Your task to perform on an android device: uninstall "Indeed Job Search" Image 0: 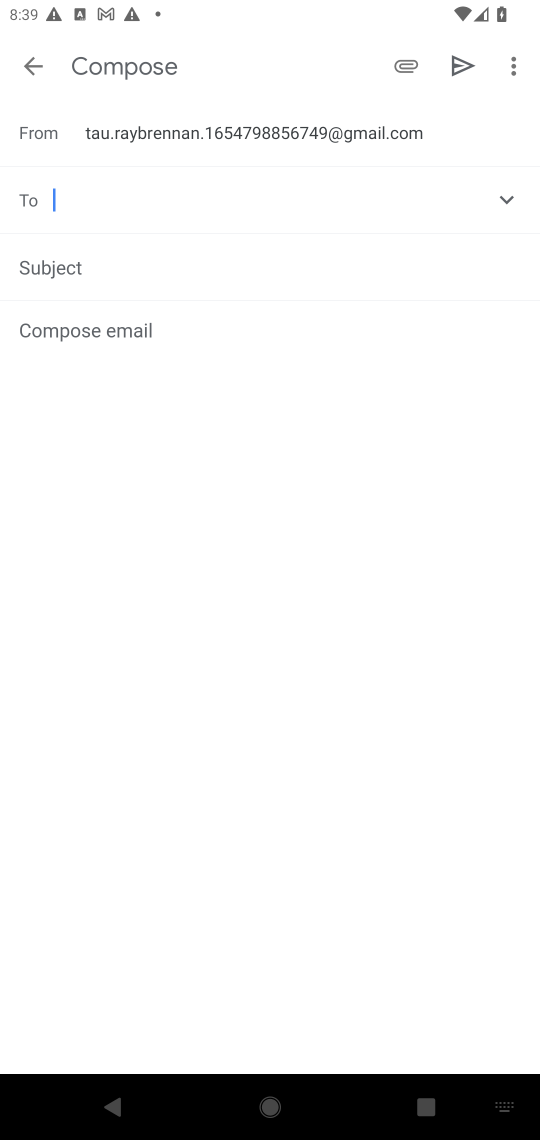
Step 0: press home button
Your task to perform on an android device: uninstall "Indeed Job Search" Image 1: 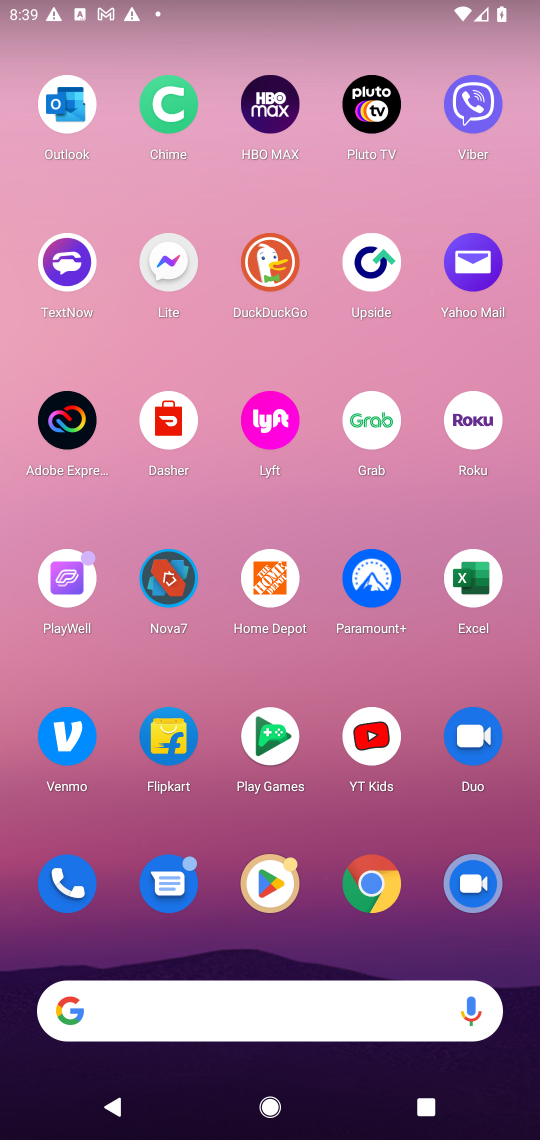
Step 1: click (289, 886)
Your task to perform on an android device: uninstall "Indeed Job Search" Image 2: 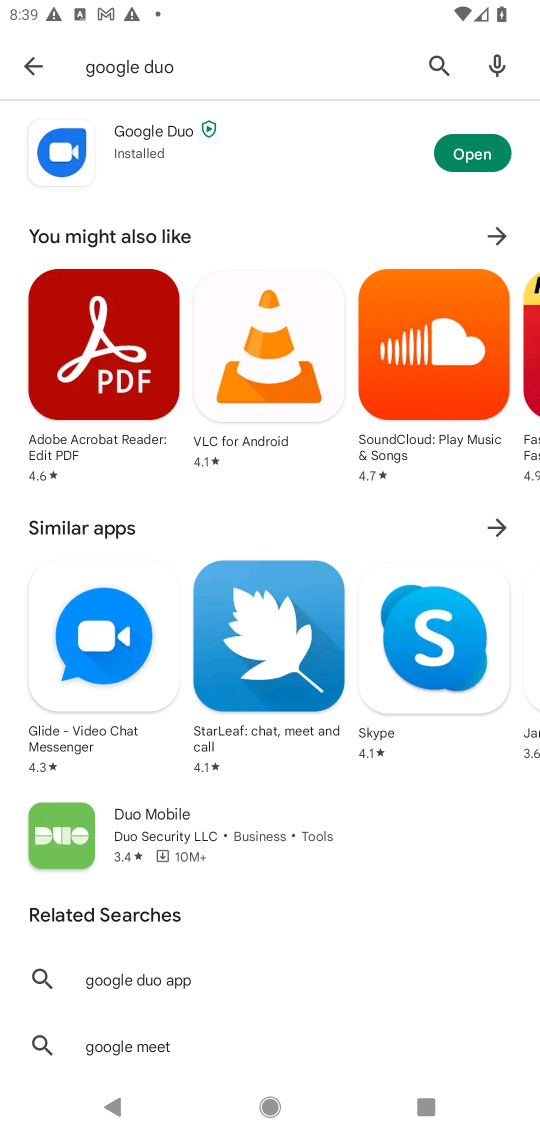
Step 2: click (437, 63)
Your task to perform on an android device: uninstall "Indeed Job Search" Image 3: 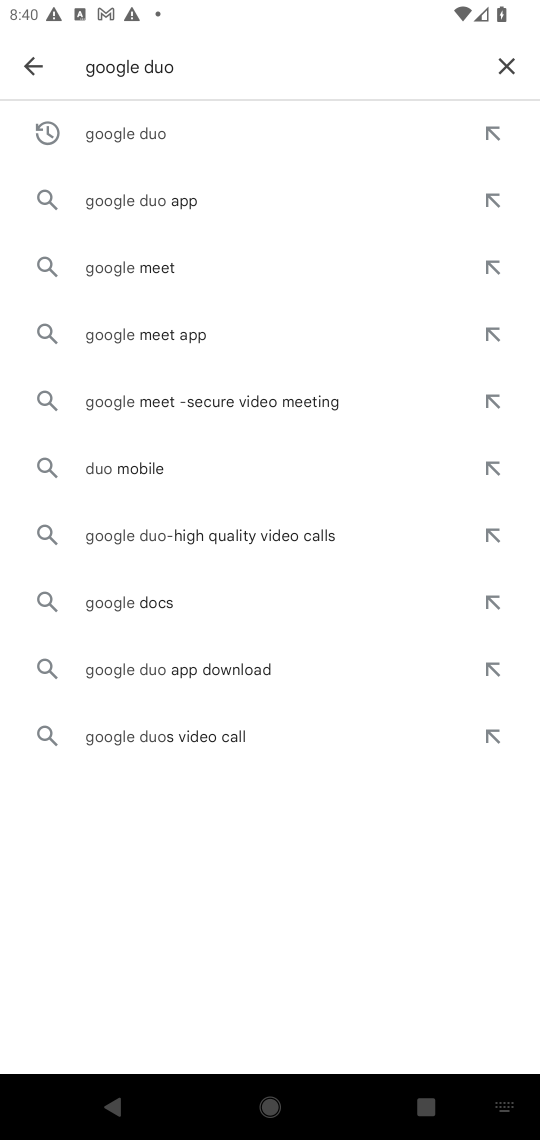
Step 3: click (507, 67)
Your task to perform on an android device: uninstall "Indeed Job Search" Image 4: 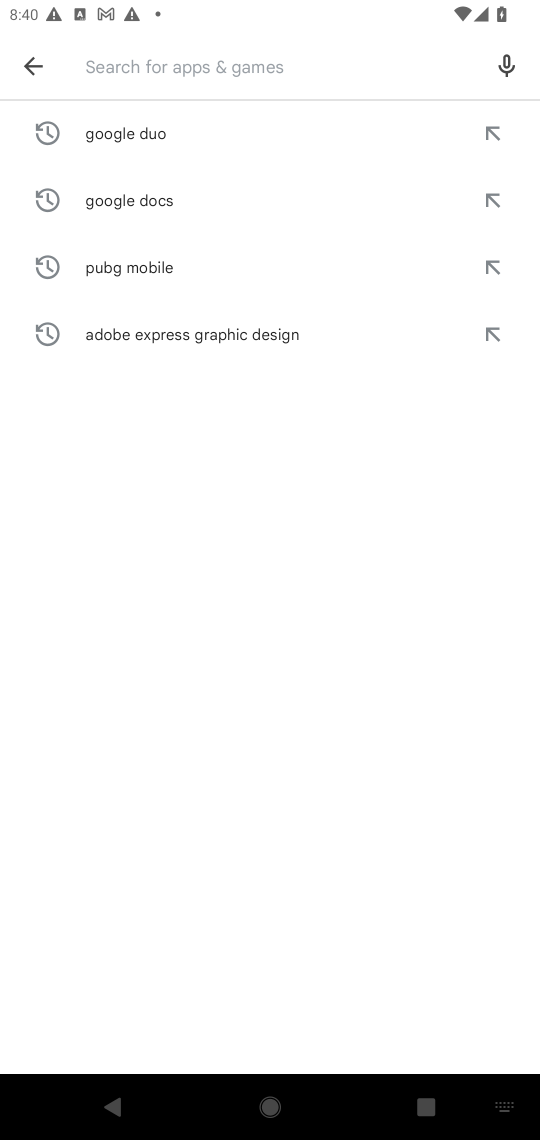
Step 4: type "Indeed Job Search"
Your task to perform on an android device: uninstall "Indeed Job Search" Image 5: 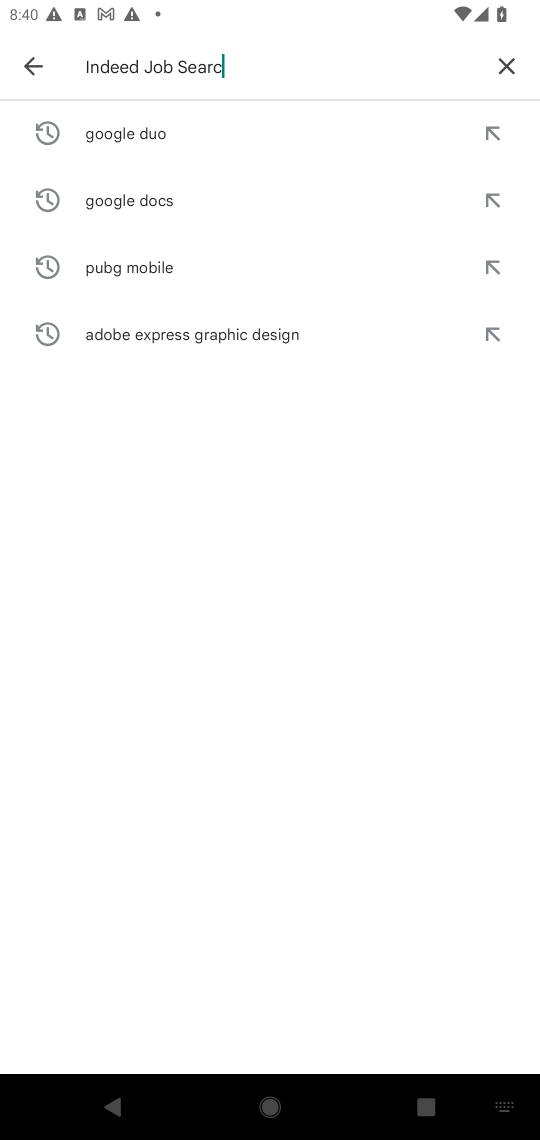
Step 5: type ""
Your task to perform on an android device: uninstall "Indeed Job Search" Image 6: 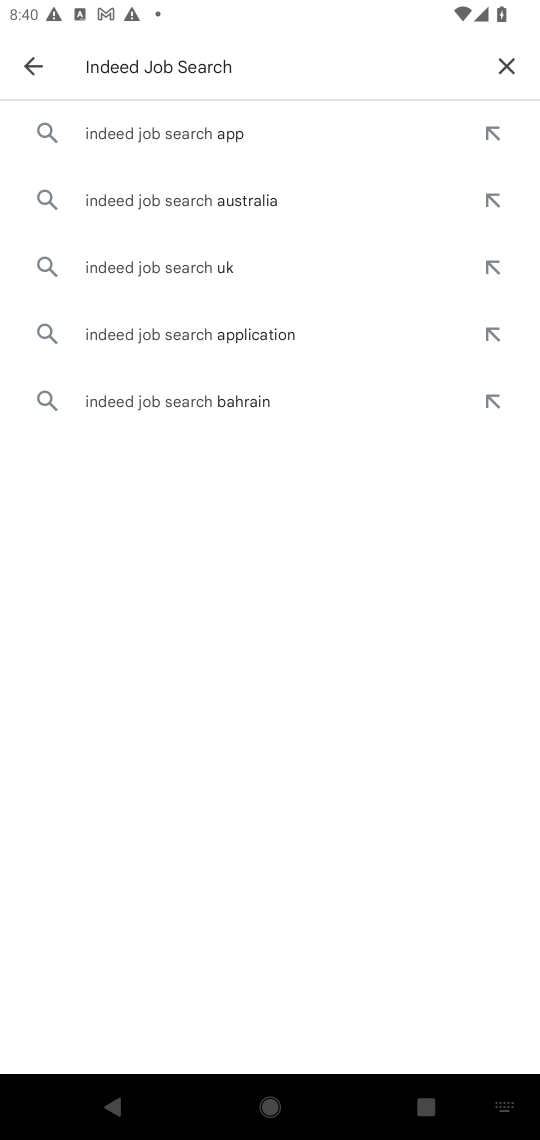
Step 6: click (284, 146)
Your task to perform on an android device: uninstall "Indeed Job Search" Image 7: 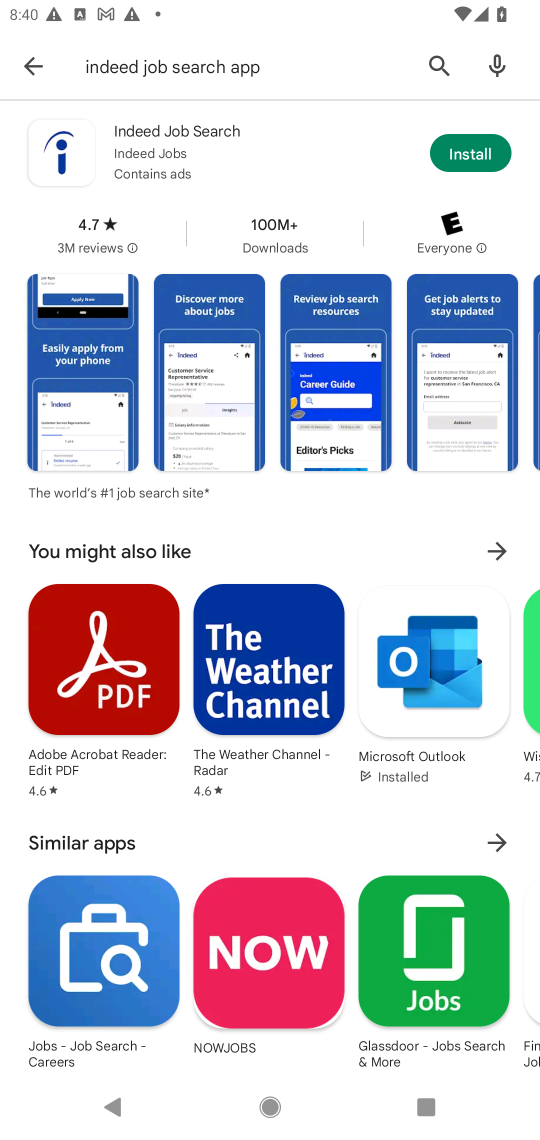
Step 7: task complete